Your task to perform on an android device: turn on notifications settings in the gmail app Image 0: 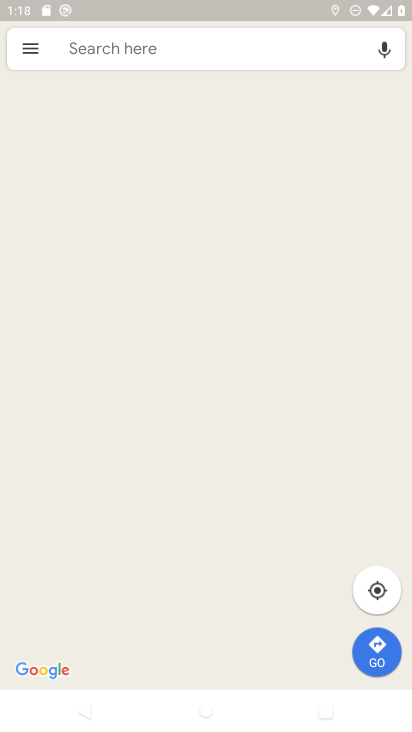
Step 0: press back button
Your task to perform on an android device: turn on notifications settings in the gmail app Image 1: 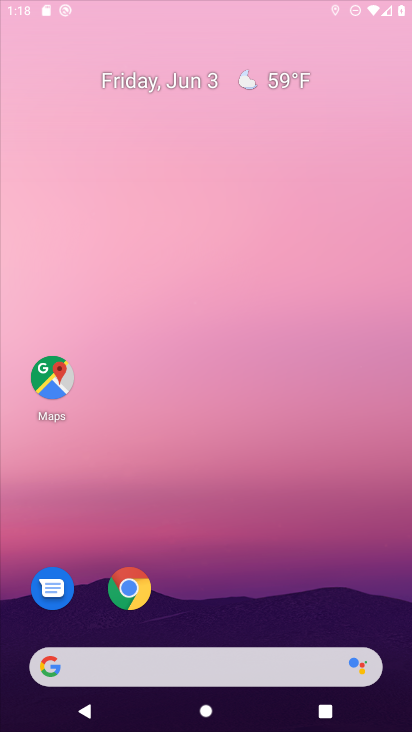
Step 1: press back button
Your task to perform on an android device: turn on notifications settings in the gmail app Image 2: 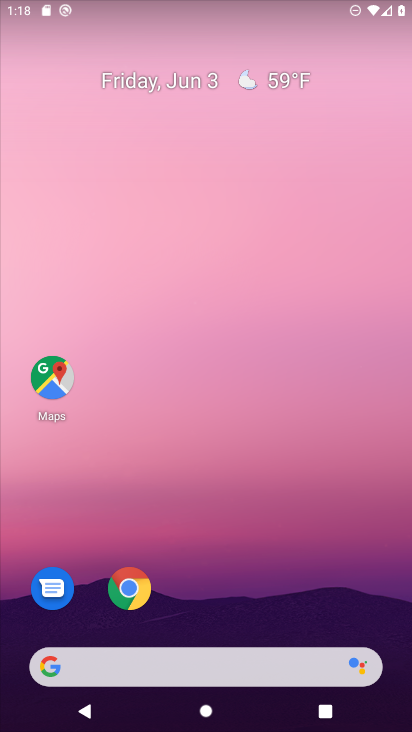
Step 2: drag from (257, 571) to (262, 0)
Your task to perform on an android device: turn on notifications settings in the gmail app Image 3: 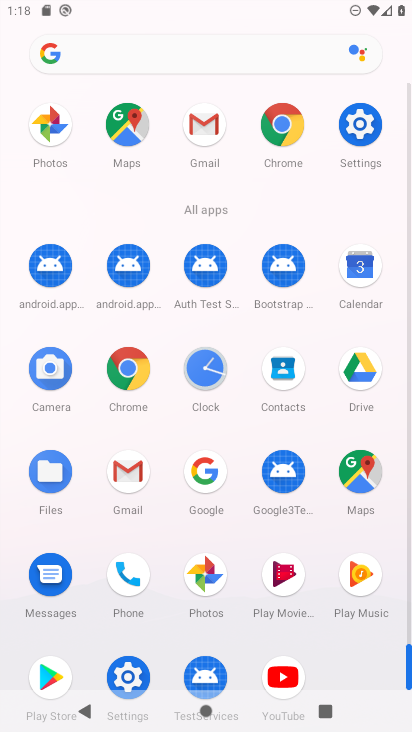
Step 3: click (131, 467)
Your task to perform on an android device: turn on notifications settings in the gmail app Image 4: 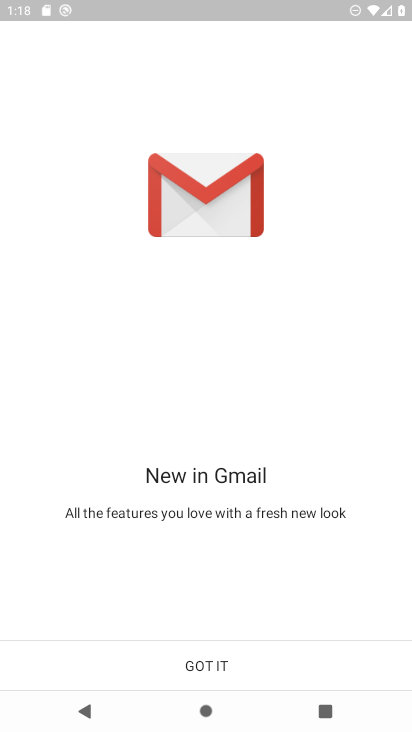
Step 4: click (208, 670)
Your task to perform on an android device: turn on notifications settings in the gmail app Image 5: 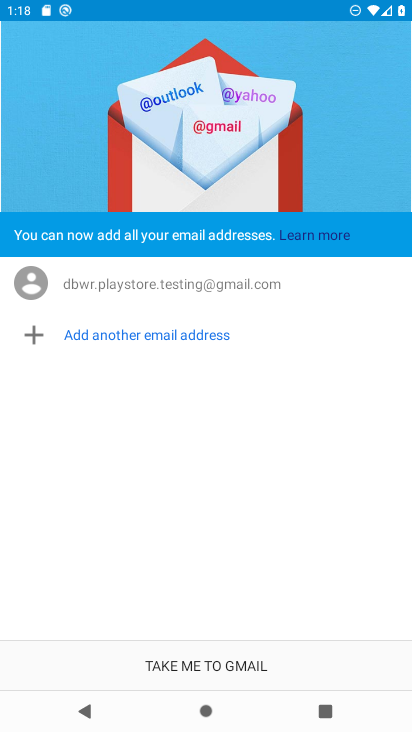
Step 5: click (202, 667)
Your task to perform on an android device: turn on notifications settings in the gmail app Image 6: 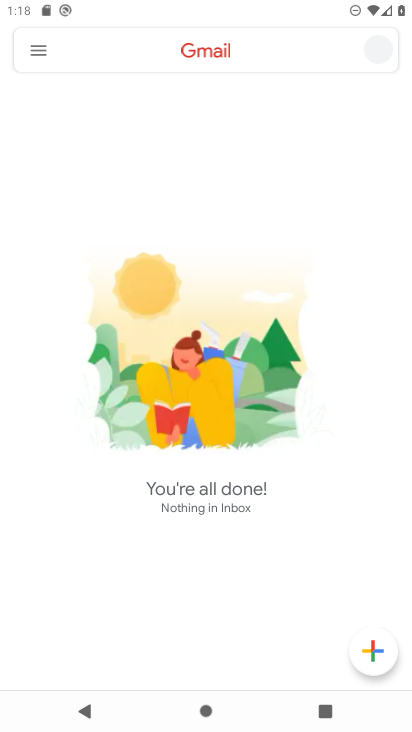
Step 6: click (35, 45)
Your task to perform on an android device: turn on notifications settings in the gmail app Image 7: 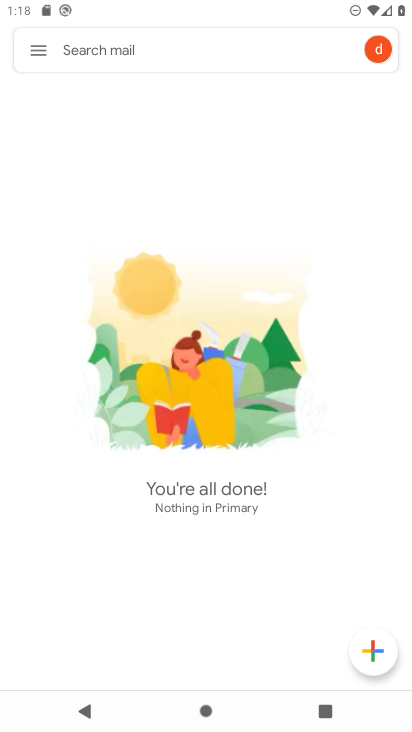
Step 7: click (42, 47)
Your task to perform on an android device: turn on notifications settings in the gmail app Image 8: 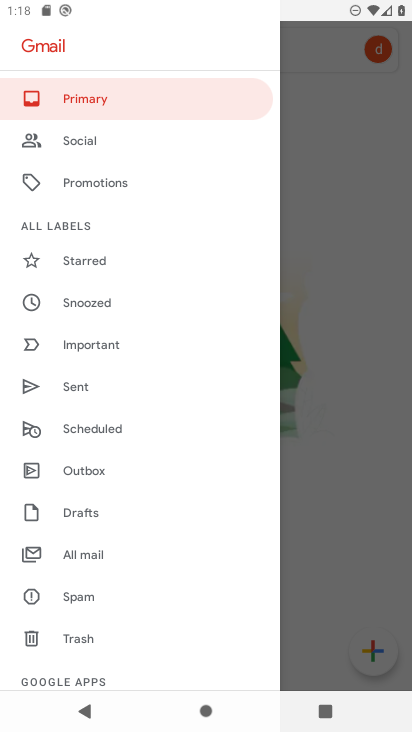
Step 8: drag from (151, 341) to (160, 195)
Your task to perform on an android device: turn on notifications settings in the gmail app Image 9: 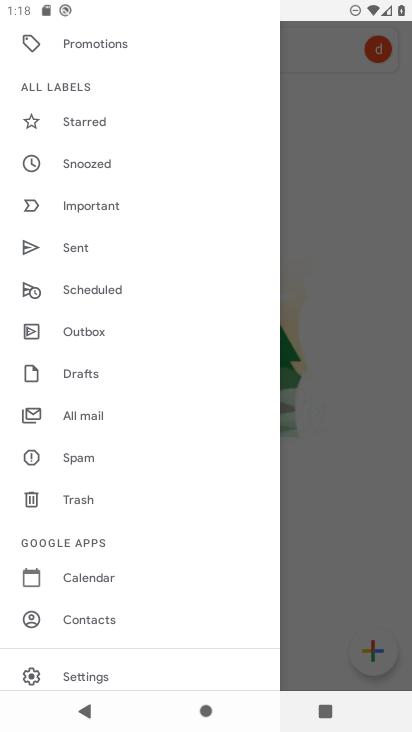
Step 9: drag from (120, 638) to (146, 247)
Your task to perform on an android device: turn on notifications settings in the gmail app Image 10: 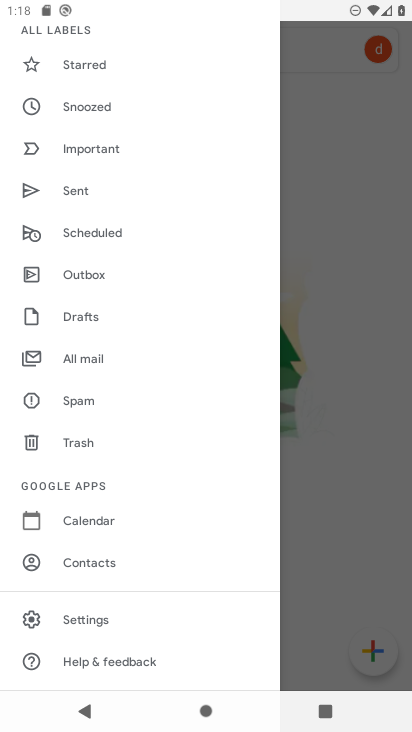
Step 10: click (84, 612)
Your task to perform on an android device: turn on notifications settings in the gmail app Image 11: 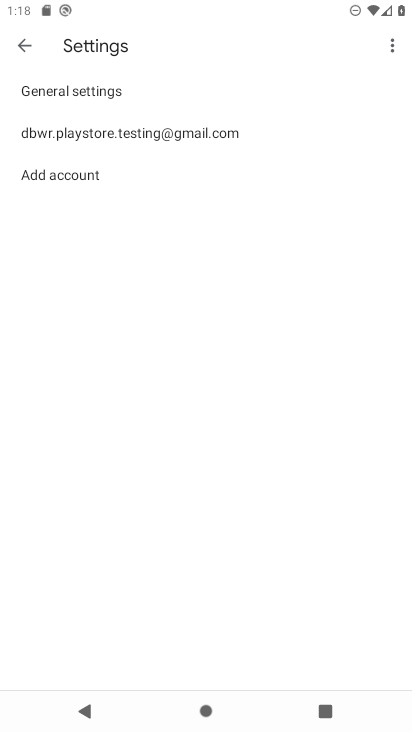
Step 11: click (155, 136)
Your task to perform on an android device: turn on notifications settings in the gmail app Image 12: 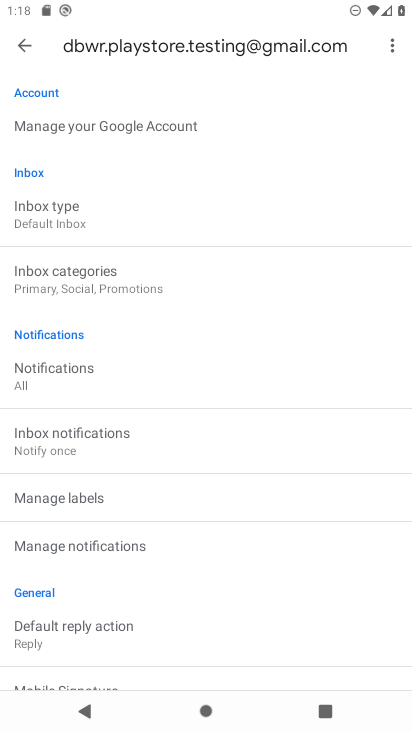
Step 12: click (140, 537)
Your task to perform on an android device: turn on notifications settings in the gmail app Image 13: 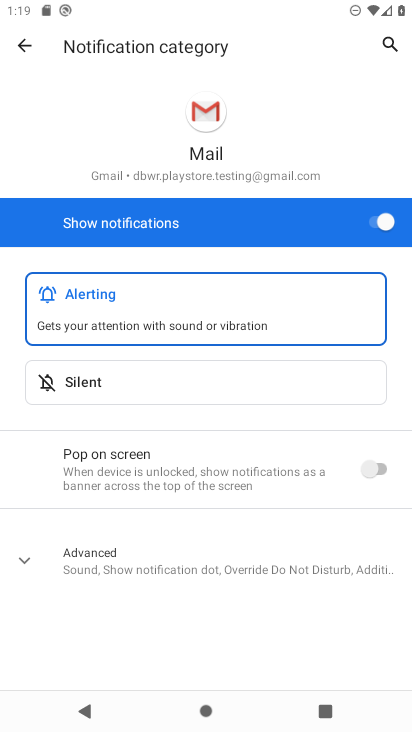
Step 13: task complete